Your task to perform on an android device: Show me the alarms in the clock app Image 0: 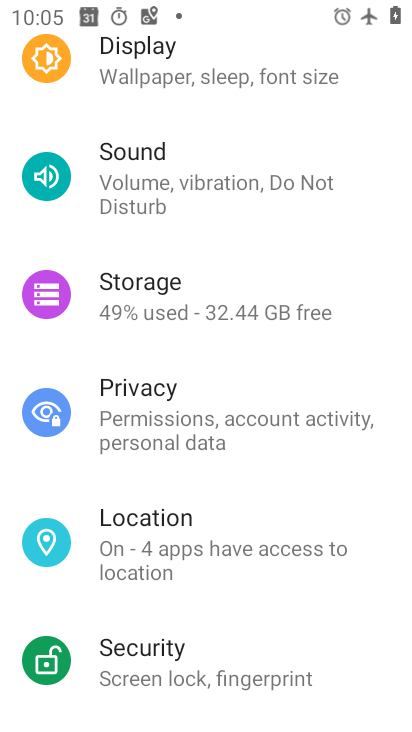
Step 0: press home button
Your task to perform on an android device: Show me the alarms in the clock app Image 1: 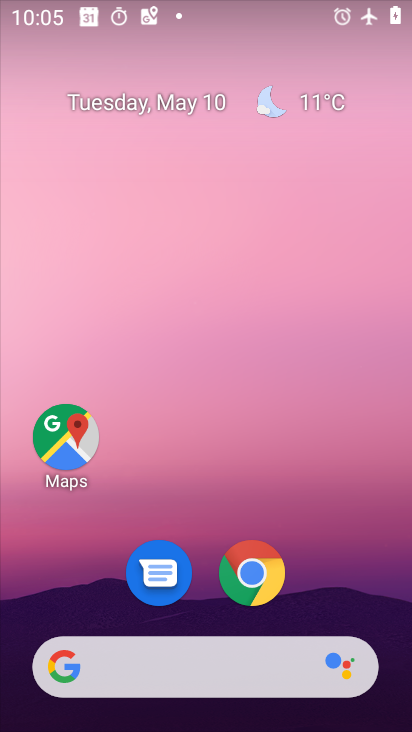
Step 1: drag from (352, 623) to (311, 0)
Your task to perform on an android device: Show me the alarms in the clock app Image 2: 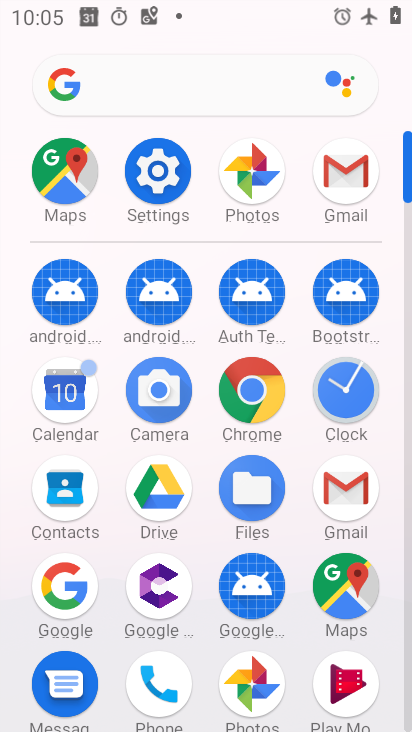
Step 2: click (347, 385)
Your task to perform on an android device: Show me the alarms in the clock app Image 3: 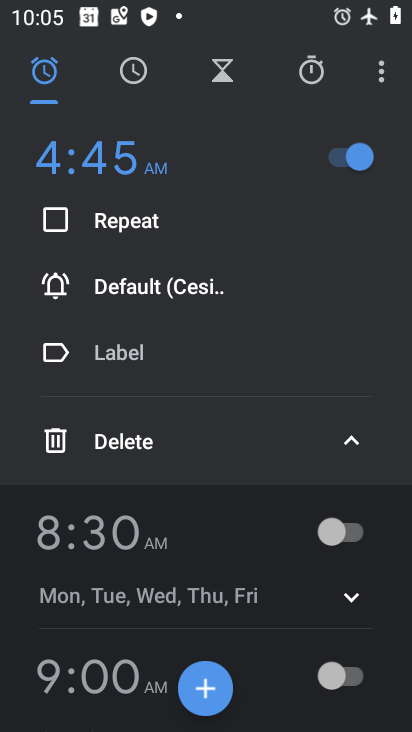
Step 3: task complete